Your task to perform on an android device: Open Reddit.com Image 0: 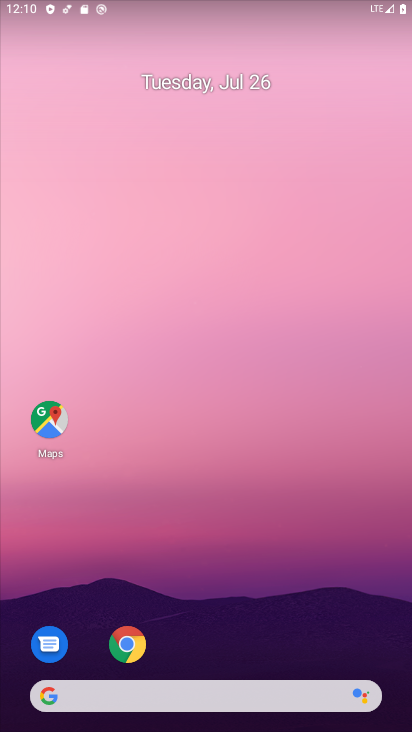
Step 0: click (179, 703)
Your task to perform on an android device: Open Reddit.com Image 1: 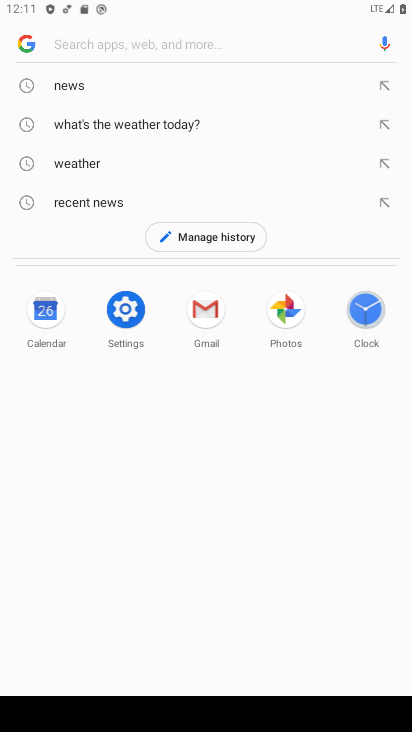
Step 1: type "reddit.com"
Your task to perform on an android device: Open Reddit.com Image 2: 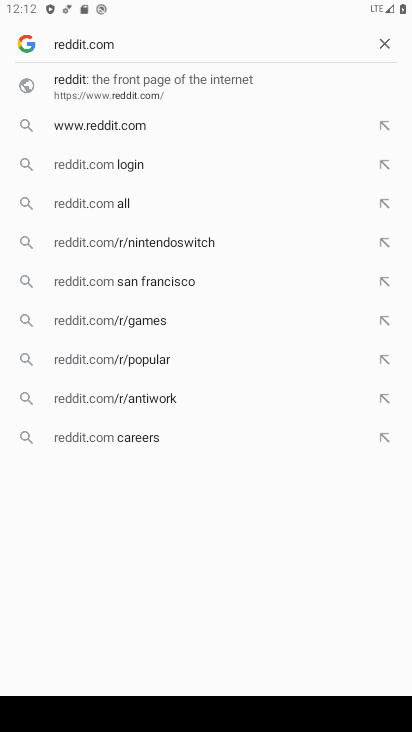
Step 2: click (143, 80)
Your task to perform on an android device: Open Reddit.com Image 3: 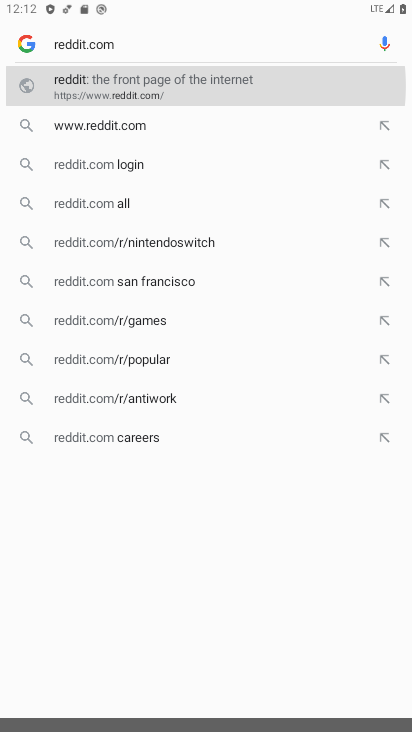
Step 3: task complete